Your task to perform on an android device: Search for lg ultragear on amazon, select the first entry, and add it to the cart. Image 0: 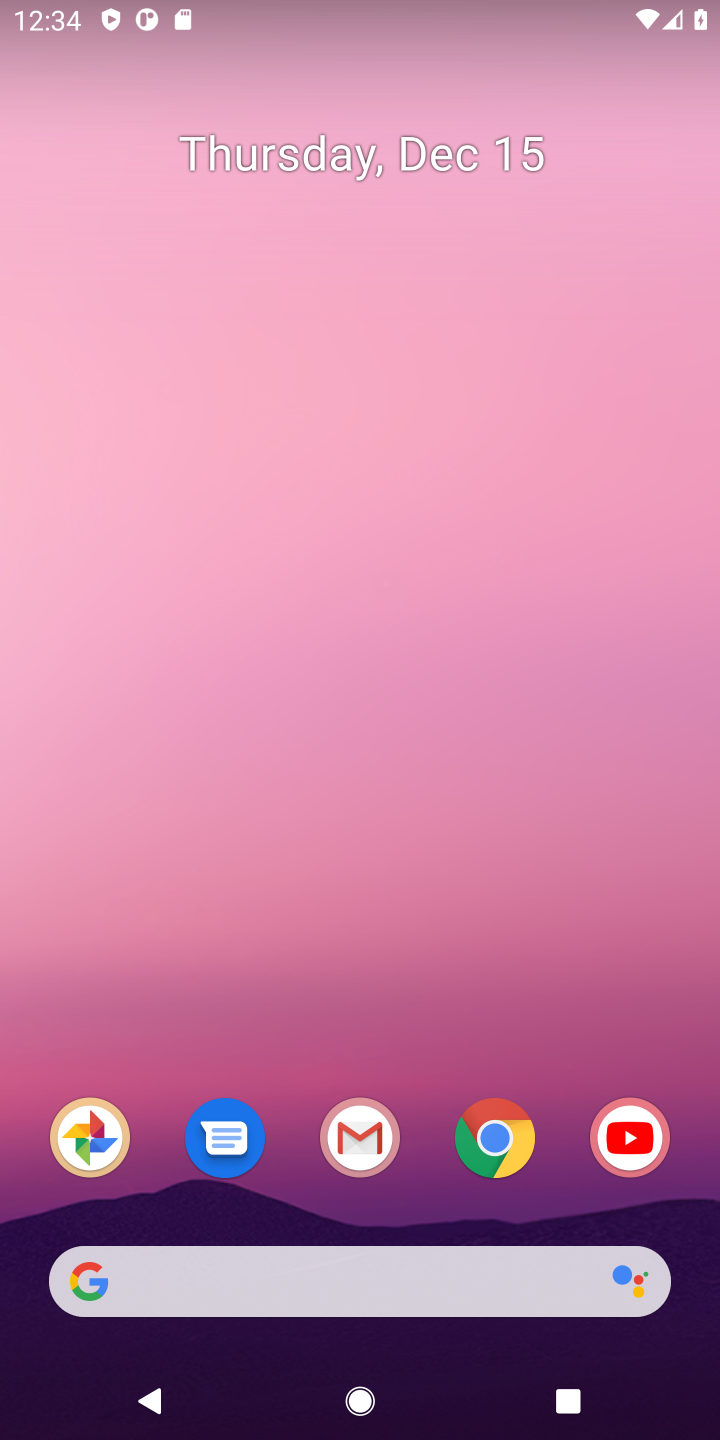
Step 0: click (502, 1142)
Your task to perform on an android device: Search for lg ultragear on amazon, select the first entry, and add it to the cart. Image 1: 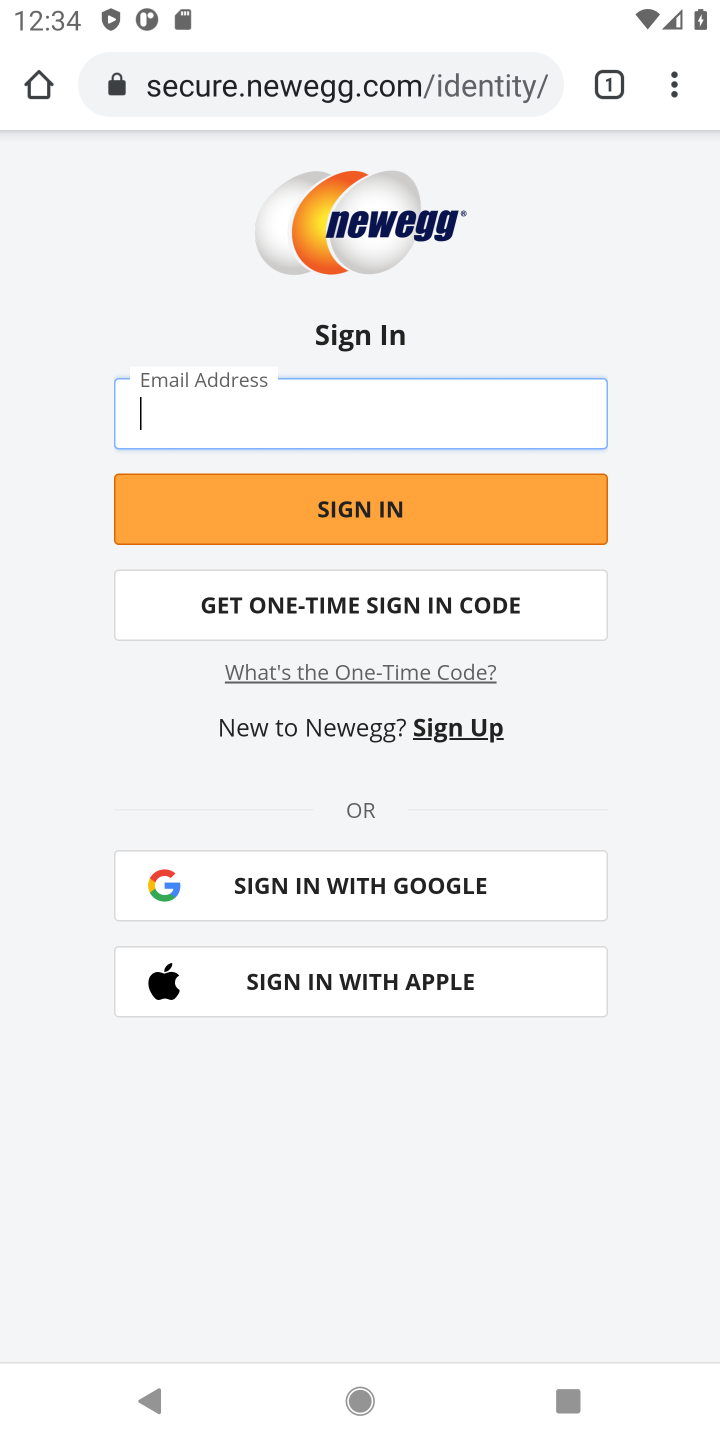
Step 1: click (233, 86)
Your task to perform on an android device: Search for lg ultragear on amazon, select the first entry, and add it to the cart. Image 2: 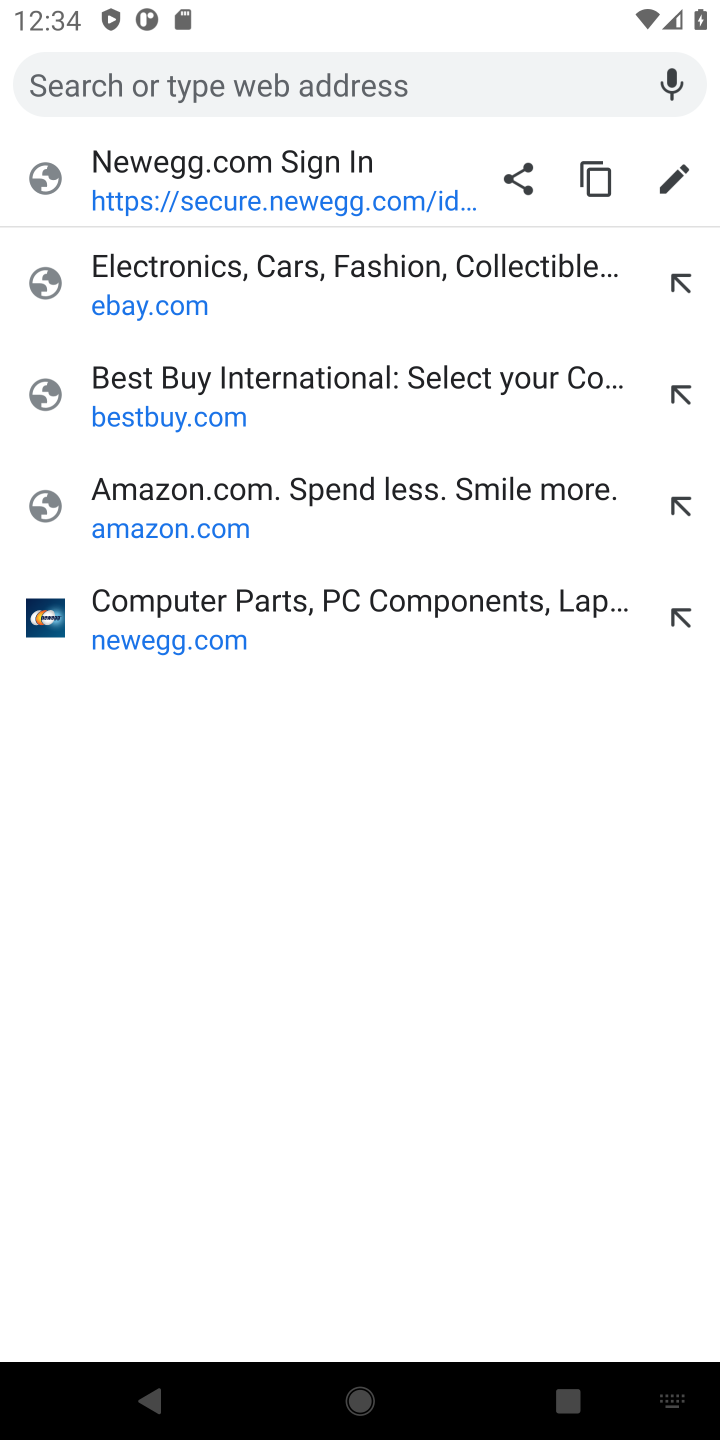
Step 2: type "amazon"
Your task to perform on an android device: Search for lg ultragear on amazon, select the first entry, and add it to the cart. Image 3: 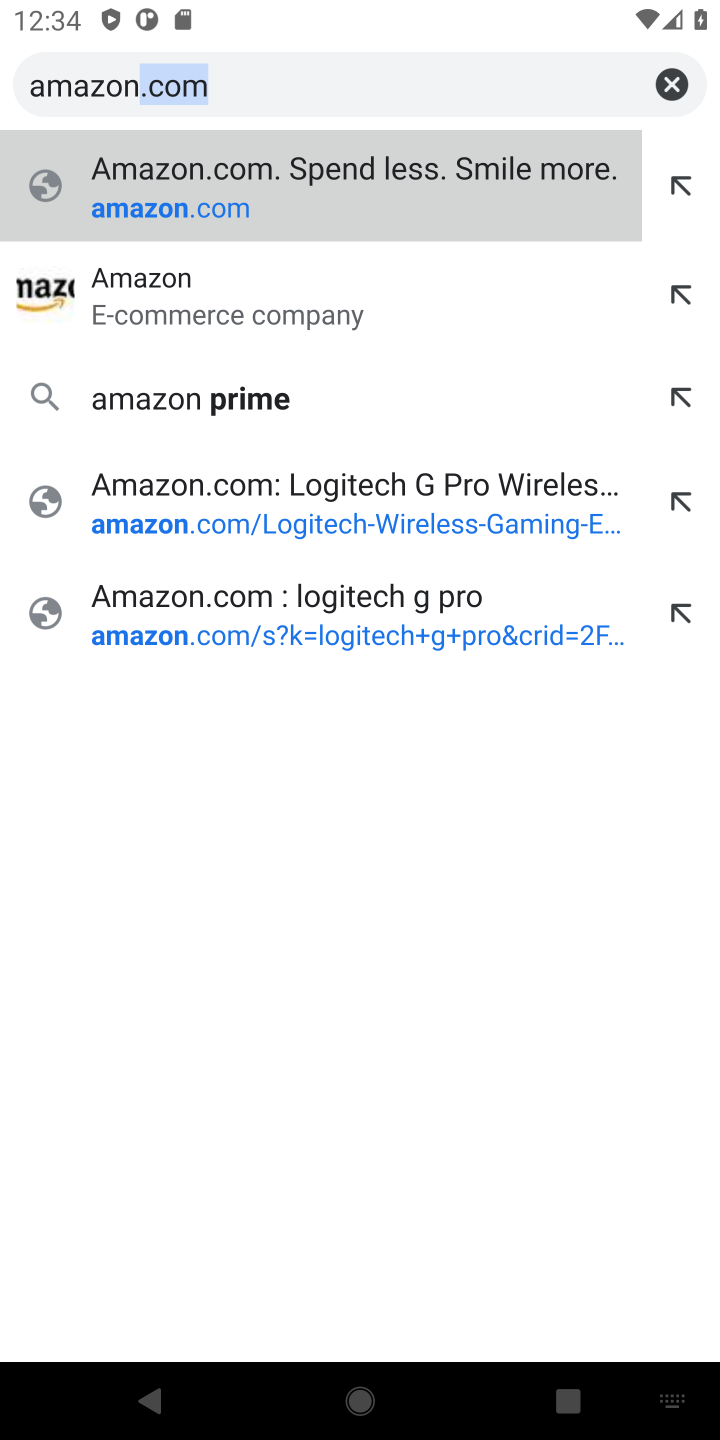
Step 3: click (219, 208)
Your task to perform on an android device: Search for lg ultragear on amazon, select the first entry, and add it to the cart. Image 4: 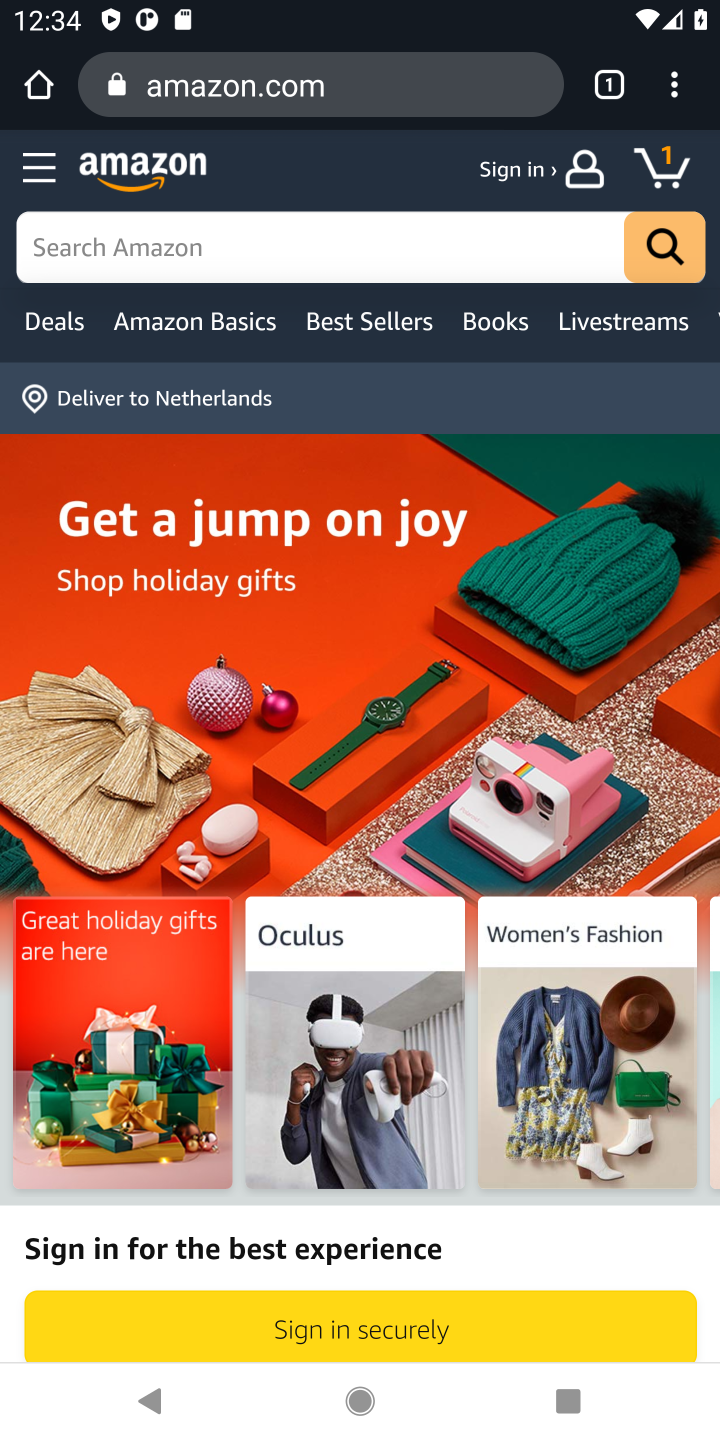
Step 4: click (176, 253)
Your task to perform on an android device: Search for lg ultragear on amazon, select the first entry, and add it to the cart. Image 5: 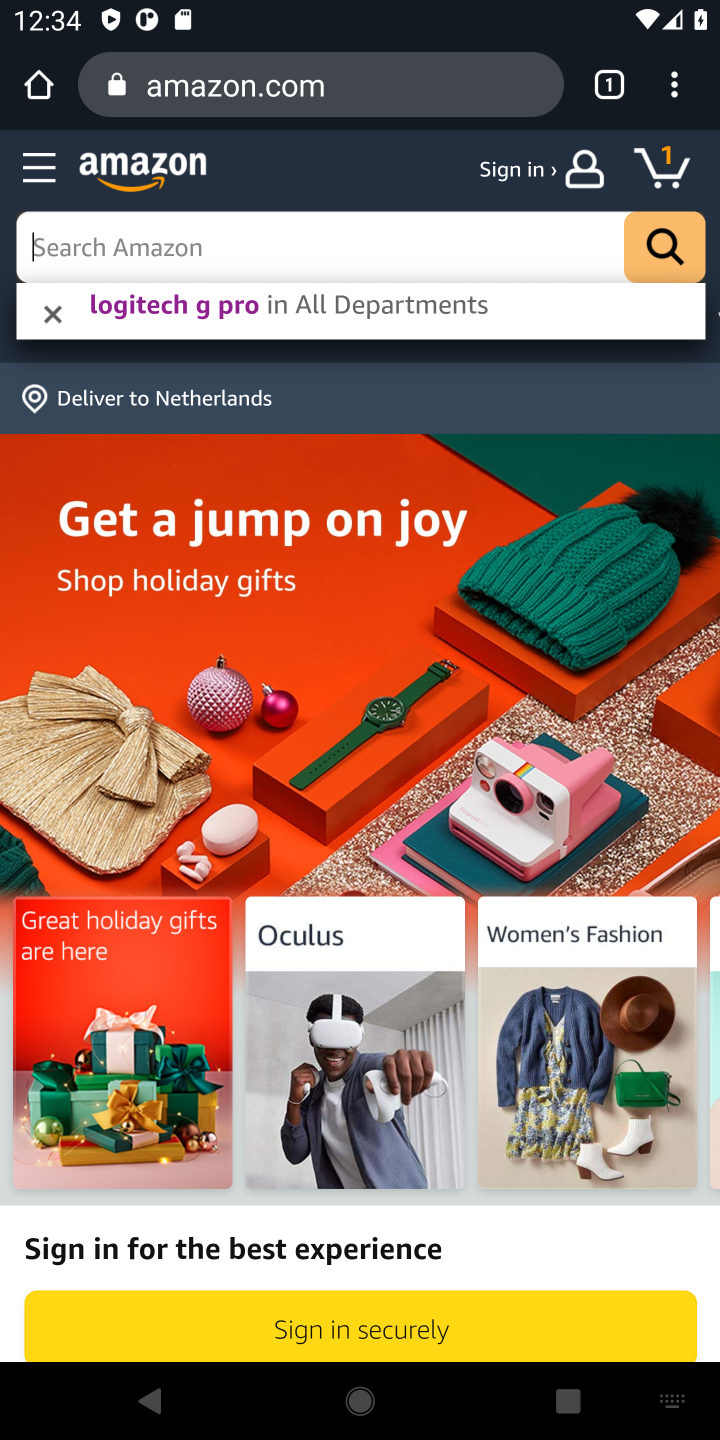
Step 5: type "lg ultragear"
Your task to perform on an android device: Search for lg ultragear on amazon, select the first entry, and add it to the cart. Image 6: 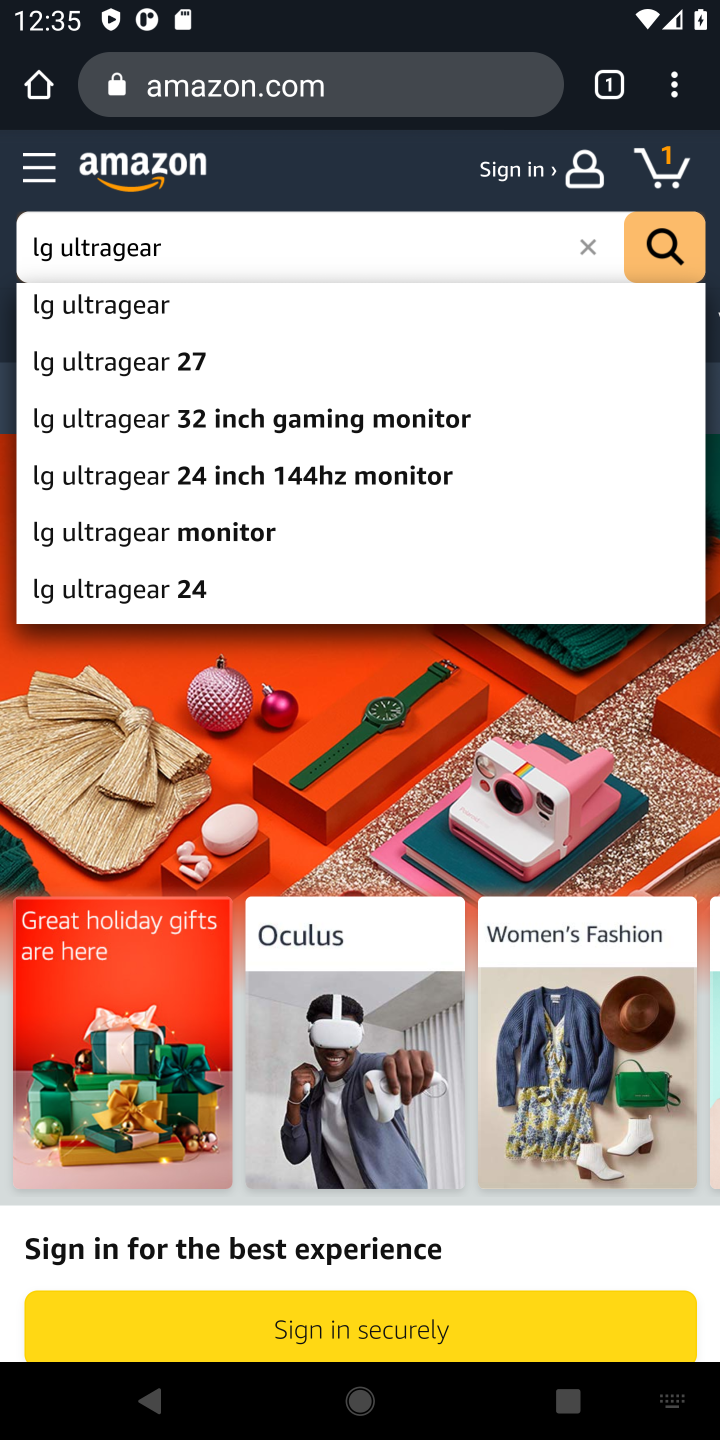
Step 6: click (688, 274)
Your task to perform on an android device: Search for lg ultragear on amazon, select the first entry, and add it to the cart. Image 7: 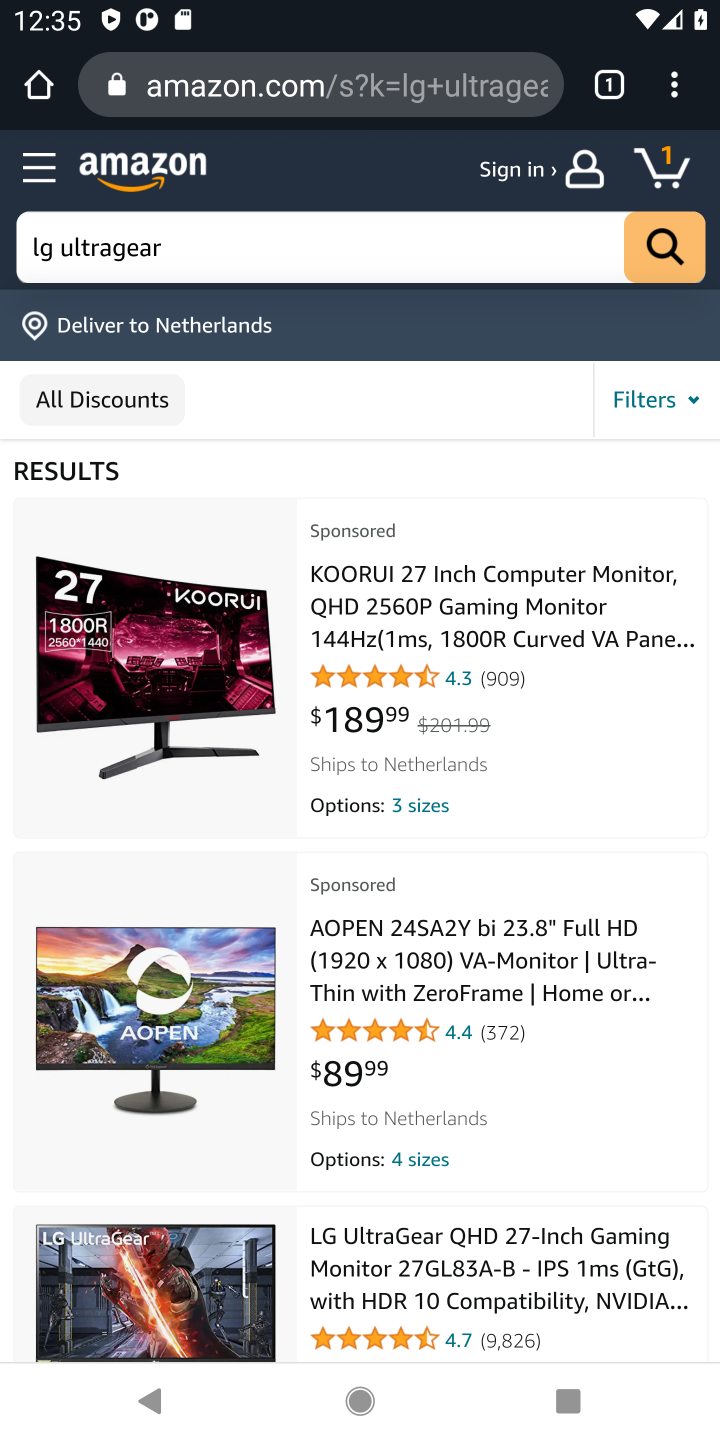
Step 7: click (358, 1274)
Your task to perform on an android device: Search for lg ultragear on amazon, select the first entry, and add it to the cart. Image 8: 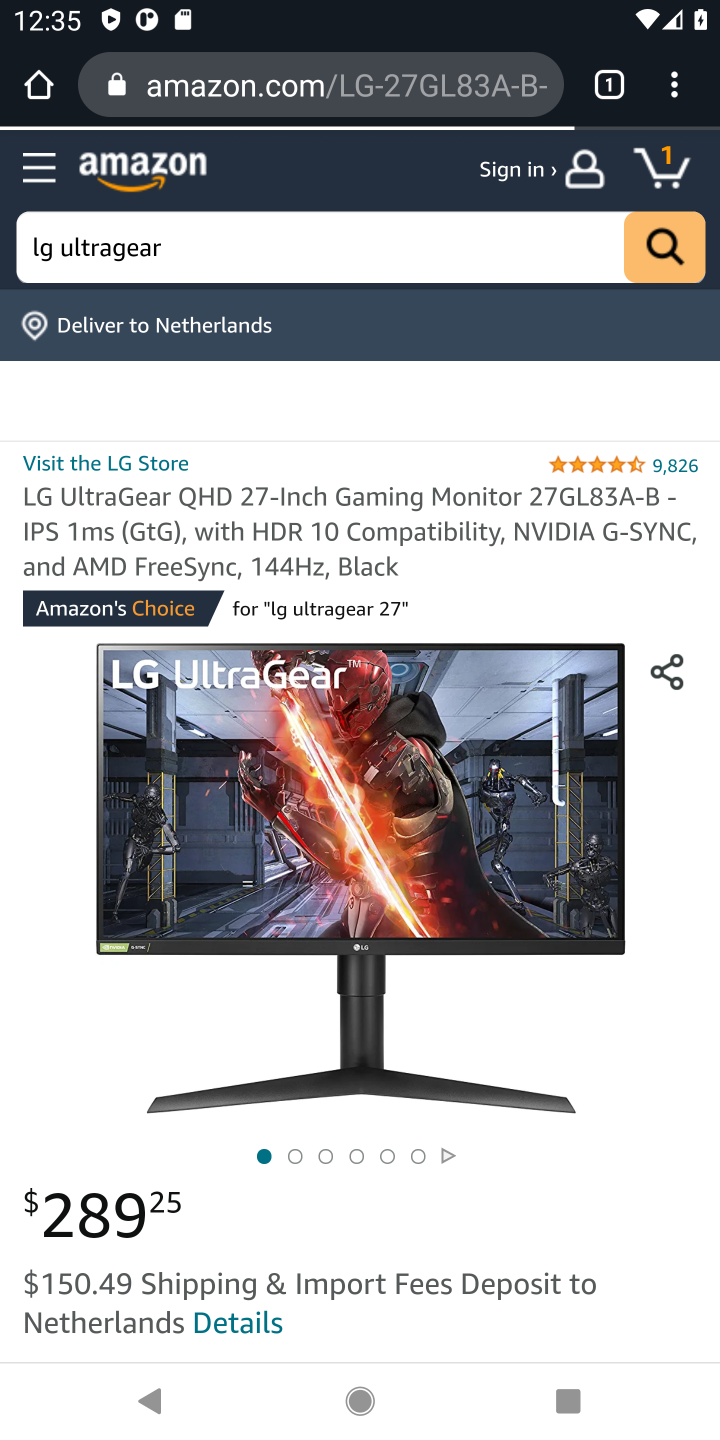
Step 8: drag from (355, 1147) to (272, 391)
Your task to perform on an android device: Search for lg ultragear on amazon, select the first entry, and add it to the cart. Image 9: 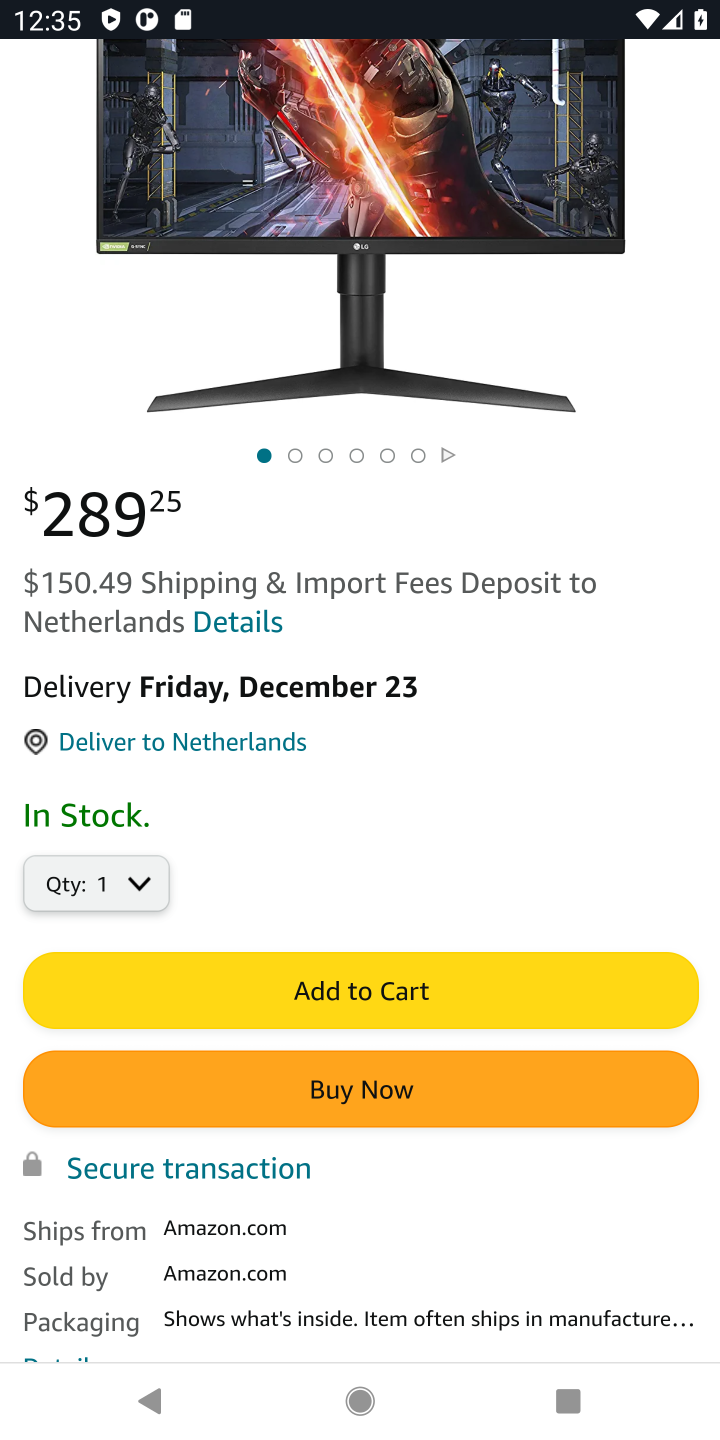
Step 9: click (247, 983)
Your task to perform on an android device: Search for lg ultragear on amazon, select the first entry, and add it to the cart. Image 10: 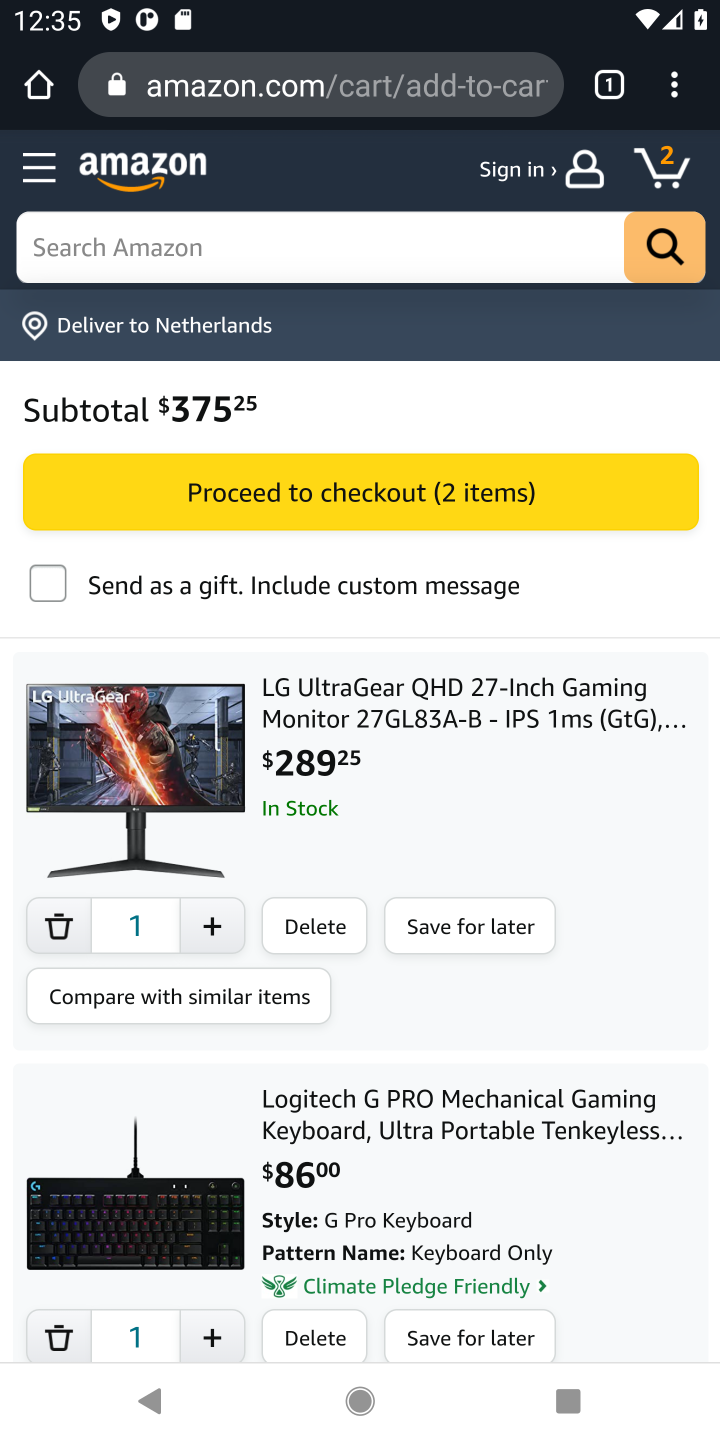
Step 10: task complete